Your task to perform on an android device: check android version Image 0: 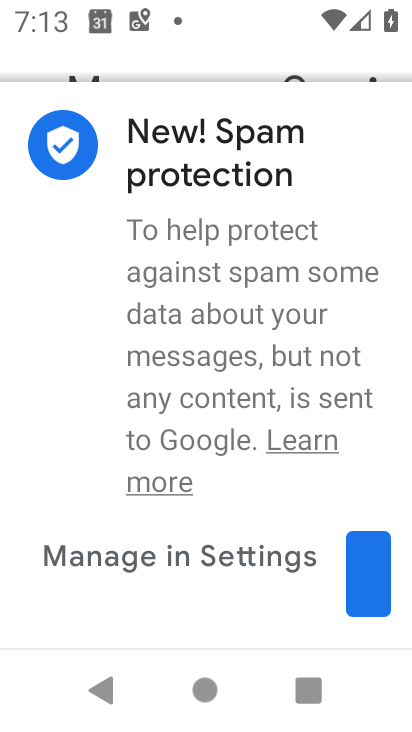
Step 0: press home button
Your task to perform on an android device: check android version Image 1: 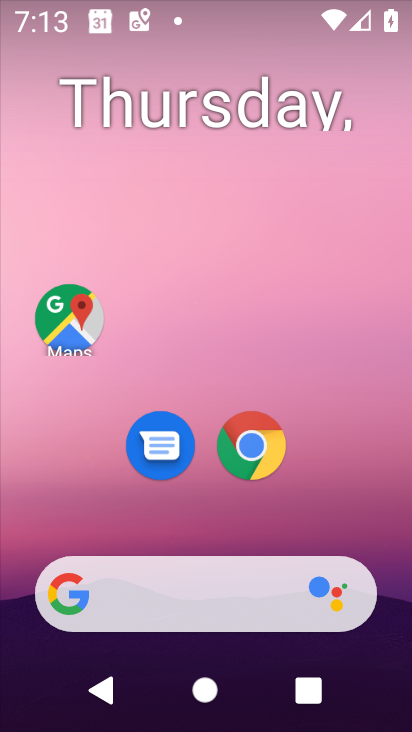
Step 1: drag from (385, 629) to (279, 2)
Your task to perform on an android device: check android version Image 2: 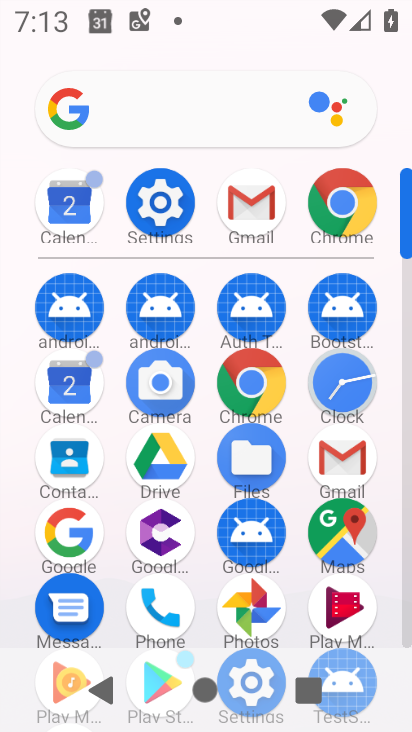
Step 2: click (143, 192)
Your task to perform on an android device: check android version Image 3: 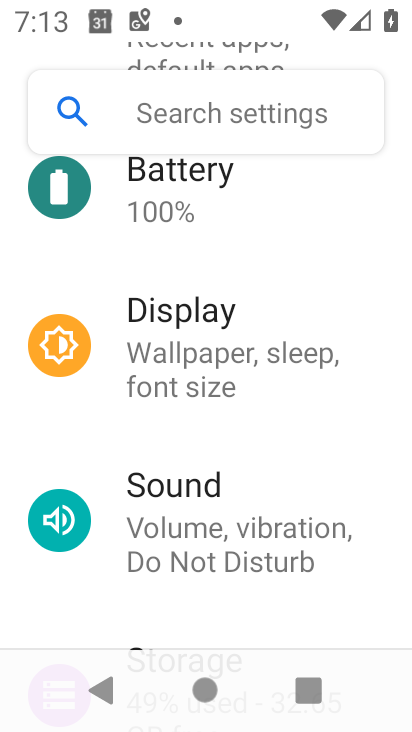
Step 3: drag from (190, 547) to (218, 61)
Your task to perform on an android device: check android version Image 4: 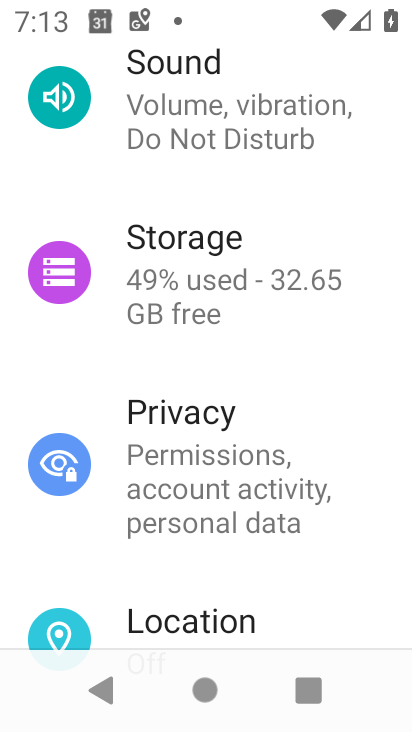
Step 4: drag from (105, 594) to (187, 24)
Your task to perform on an android device: check android version Image 5: 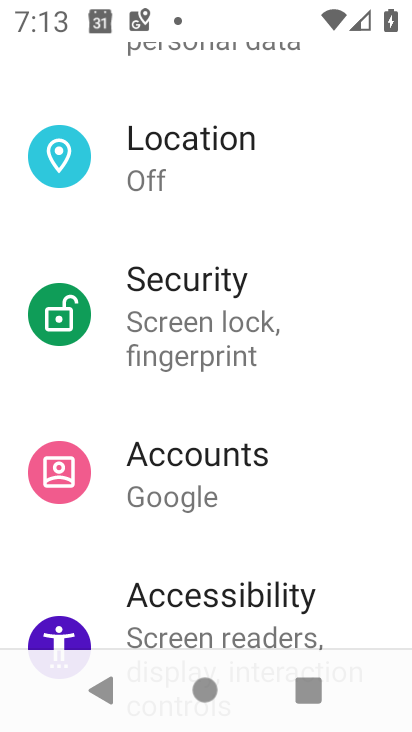
Step 5: drag from (144, 533) to (309, 12)
Your task to perform on an android device: check android version Image 6: 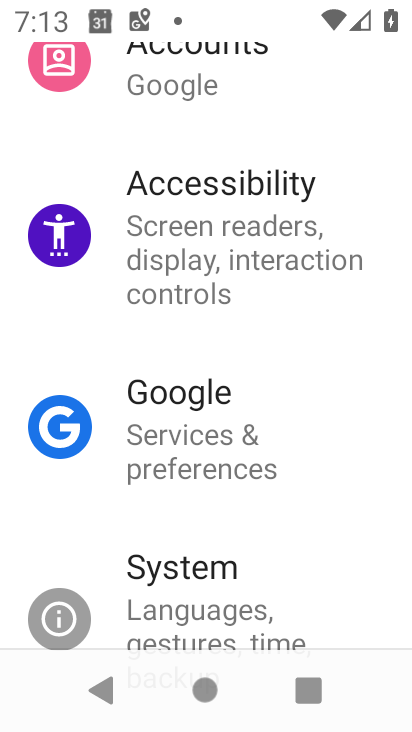
Step 6: drag from (199, 569) to (310, 0)
Your task to perform on an android device: check android version Image 7: 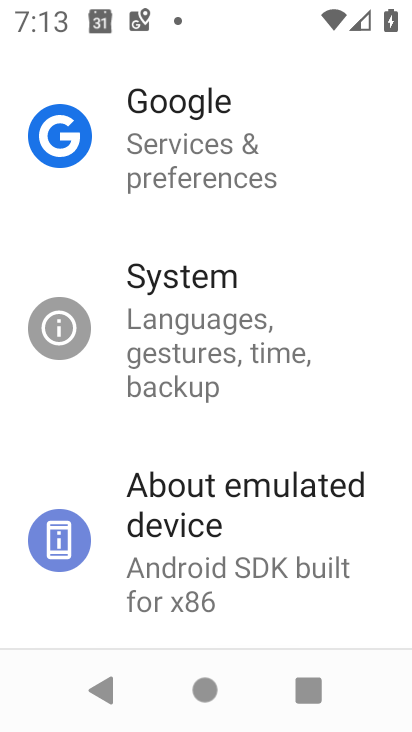
Step 7: drag from (191, 515) to (249, 22)
Your task to perform on an android device: check android version Image 8: 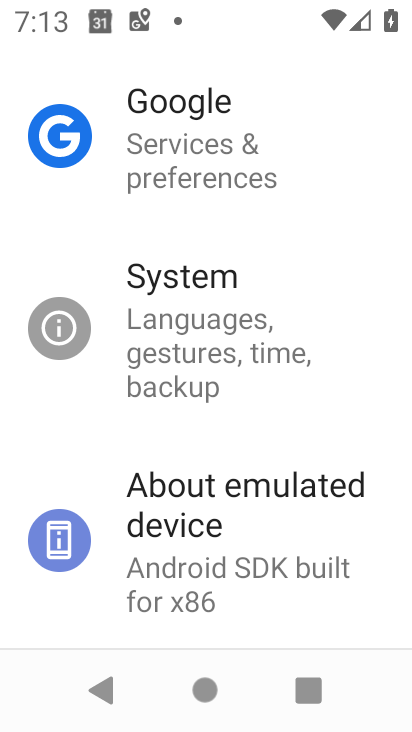
Step 8: click (224, 495)
Your task to perform on an android device: check android version Image 9: 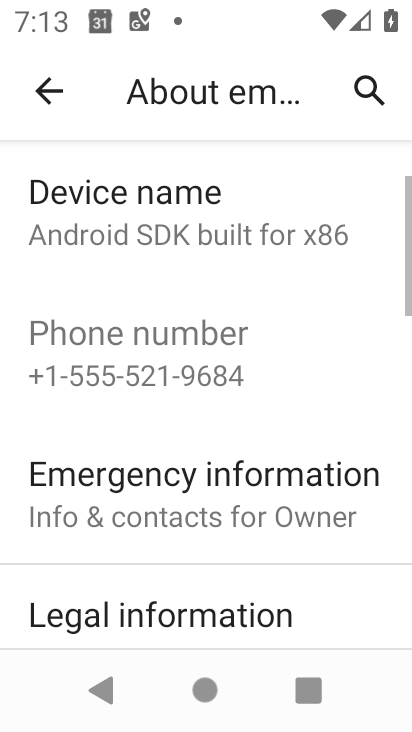
Step 9: drag from (151, 608) to (126, 42)
Your task to perform on an android device: check android version Image 10: 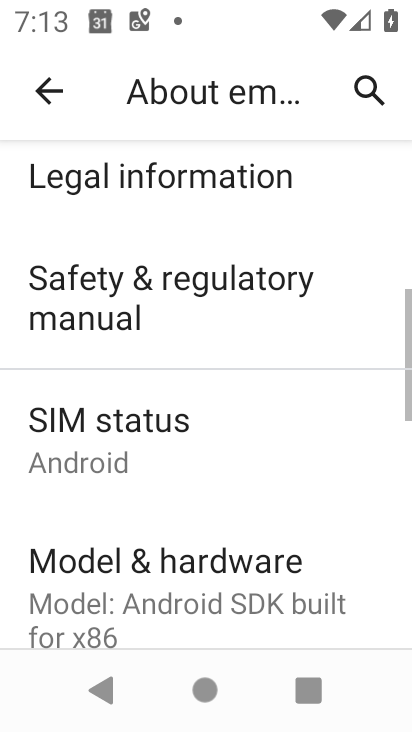
Step 10: drag from (120, 579) to (221, 59)
Your task to perform on an android device: check android version Image 11: 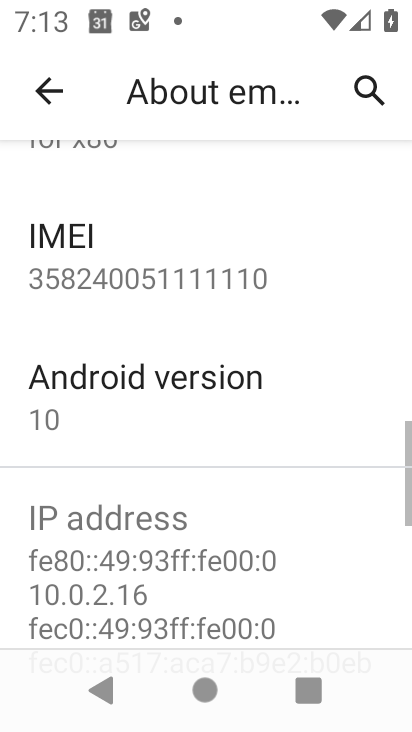
Step 11: click (103, 440)
Your task to perform on an android device: check android version Image 12: 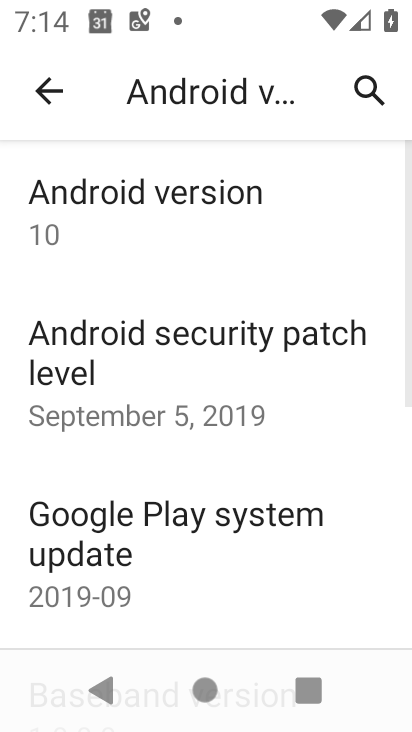
Step 12: task complete